Your task to perform on an android device: Search for Mexican restaurants on Maps Image 0: 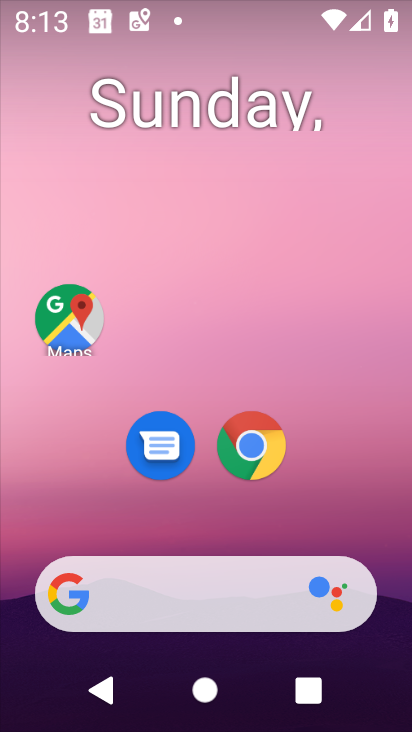
Step 0: click (86, 321)
Your task to perform on an android device: Search for Mexican restaurants on Maps Image 1: 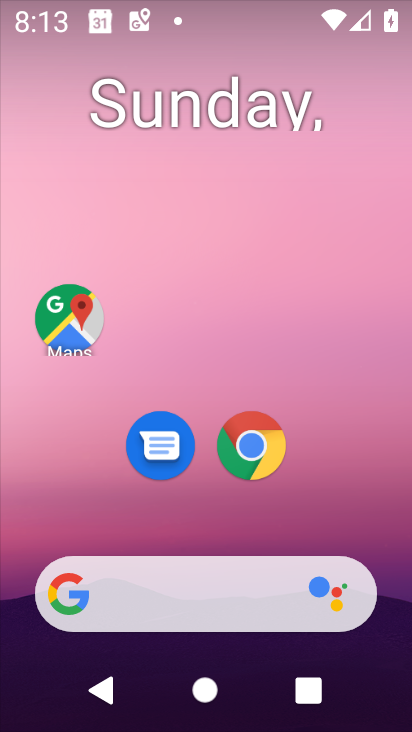
Step 1: click (86, 321)
Your task to perform on an android device: Search for Mexican restaurants on Maps Image 2: 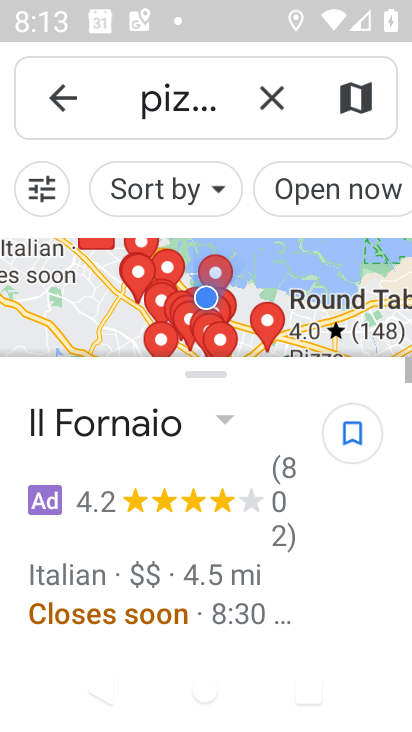
Step 2: click (283, 96)
Your task to perform on an android device: Search for Mexican restaurants on Maps Image 3: 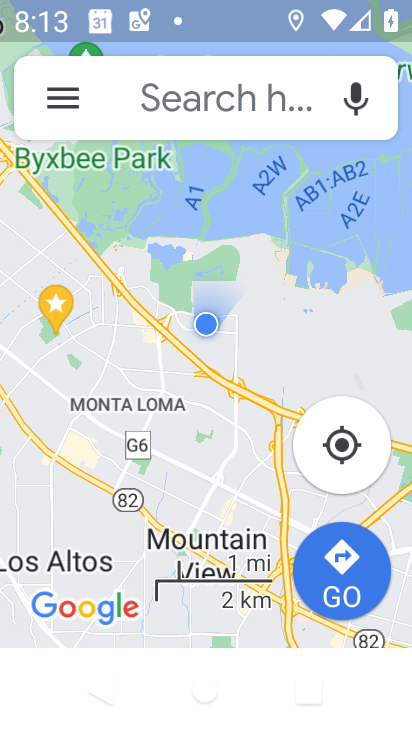
Step 3: click (212, 113)
Your task to perform on an android device: Search for Mexican restaurants on Maps Image 4: 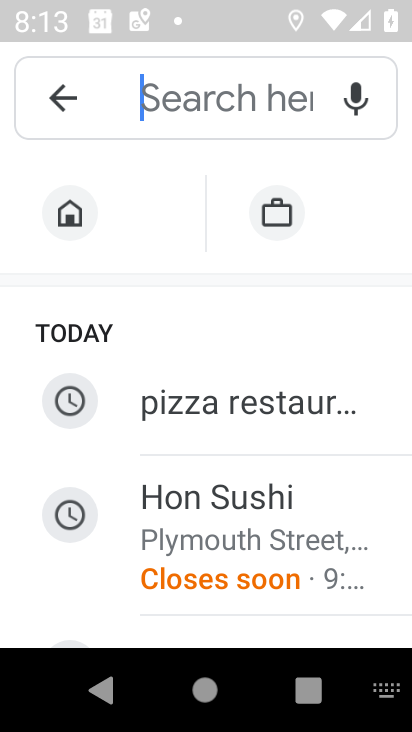
Step 4: drag from (17, 557) to (320, 131)
Your task to perform on an android device: Search for Mexican restaurants on Maps Image 5: 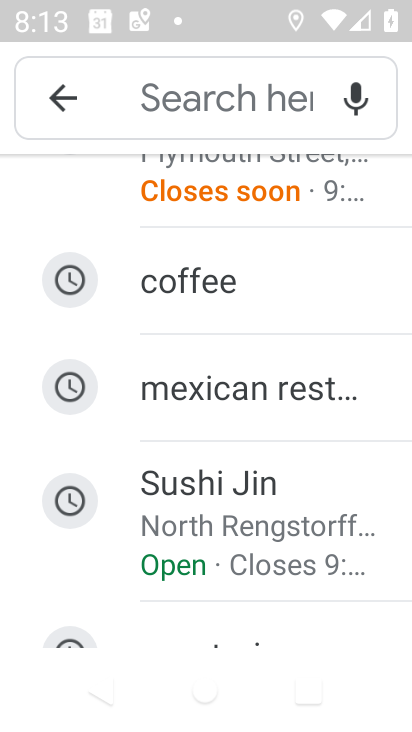
Step 5: click (288, 347)
Your task to perform on an android device: Search for Mexican restaurants on Maps Image 6: 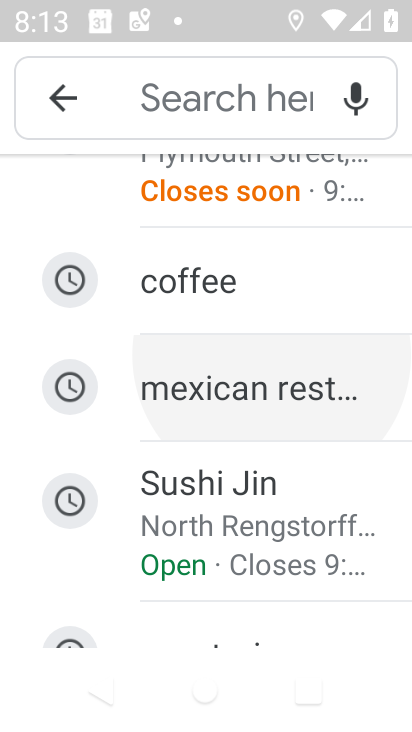
Step 6: click (202, 402)
Your task to perform on an android device: Search for Mexican restaurants on Maps Image 7: 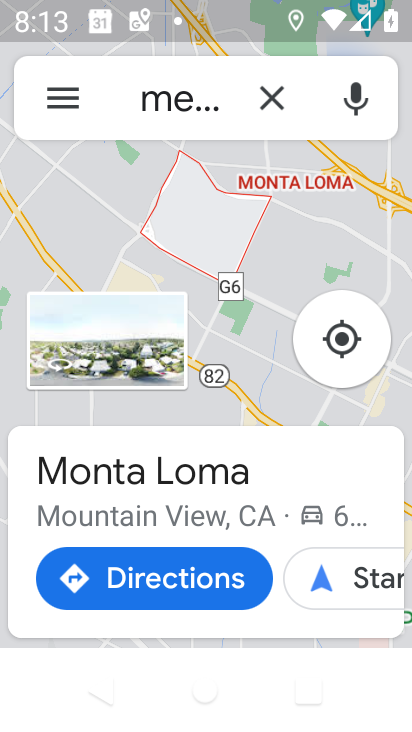
Step 7: task complete